Your task to perform on an android device: Is it going to rain today? Image 0: 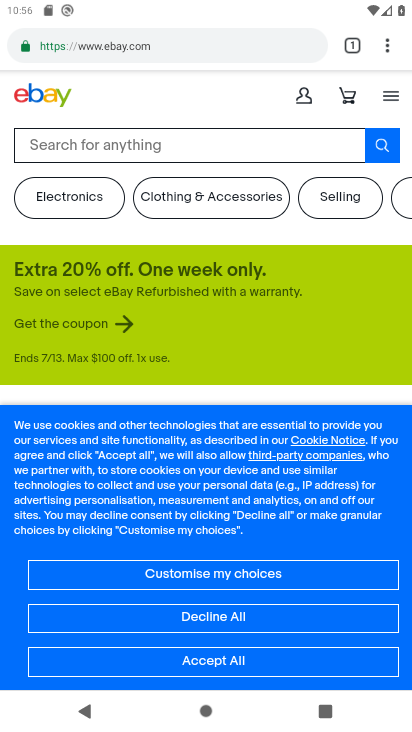
Step 0: press home button
Your task to perform on an android device: Is it going to rain today? Image 1: 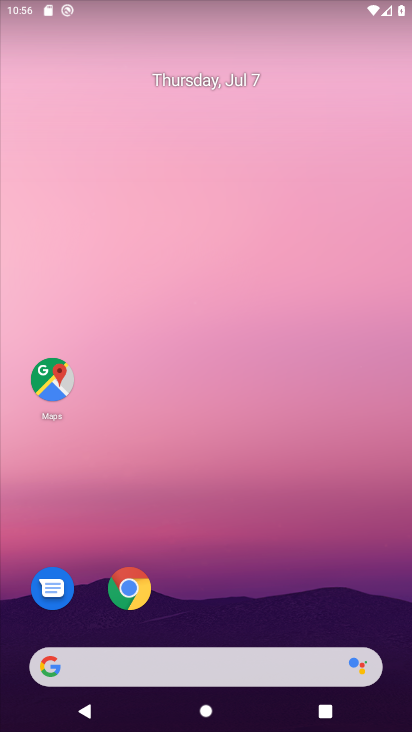
Step 1: click (143, 675)
Your task to perform on an android device: Is it going to rain today? Image 2: 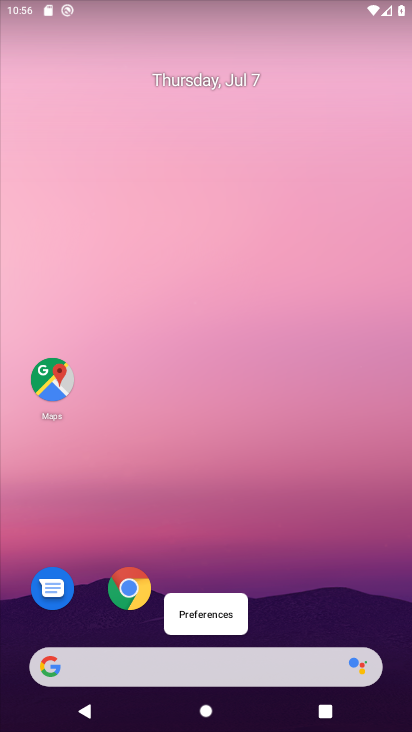
Step 2: click (196, 662)
Your task to perform on an android device: Is it going to rain today? Image 3: 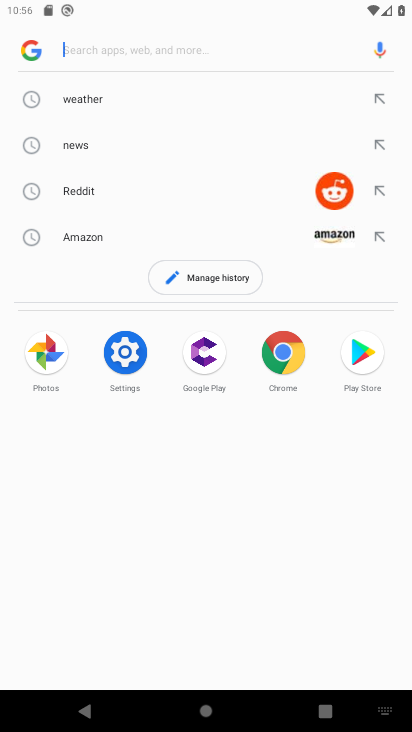
Step 3: type "Is it going to rain today"
Your task to perform on an android device: Is it going to rain today? Image 4: 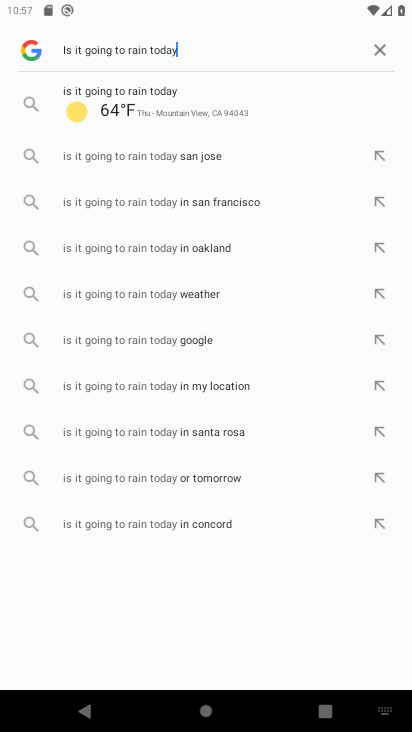
Step 4: click (144, 97)
Your task to perform on an android device: Is it going to rain today? Image 5: 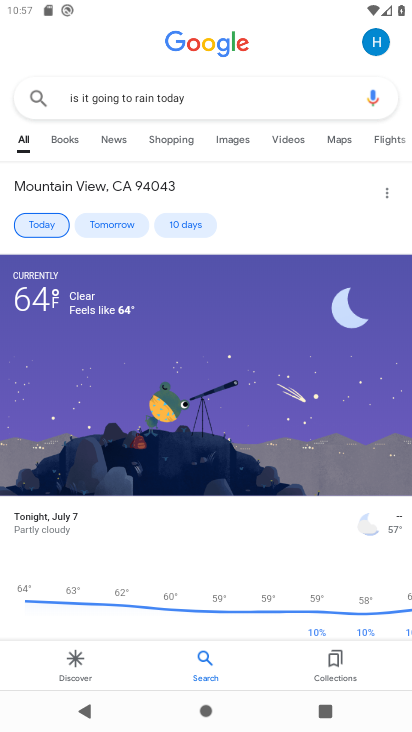
Step 5: task complete